Your task to perform on an android device: turn smart compose on in the gmail app Image 0: 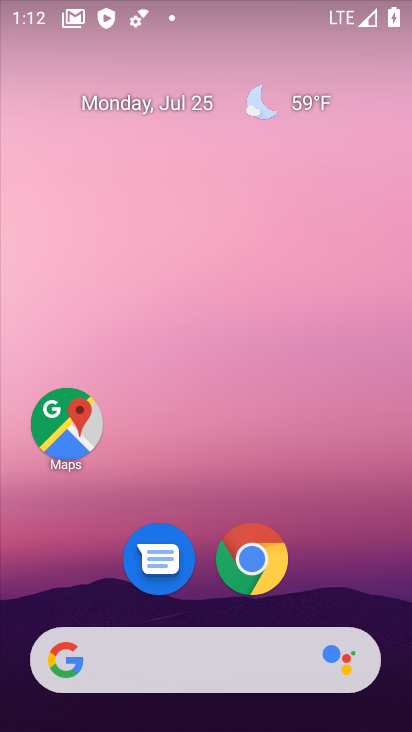
Step 0: drag from (130, 622) to (284, 0)
Your task to perform on an android device: turn smart compose on in the gmail app Image 1: 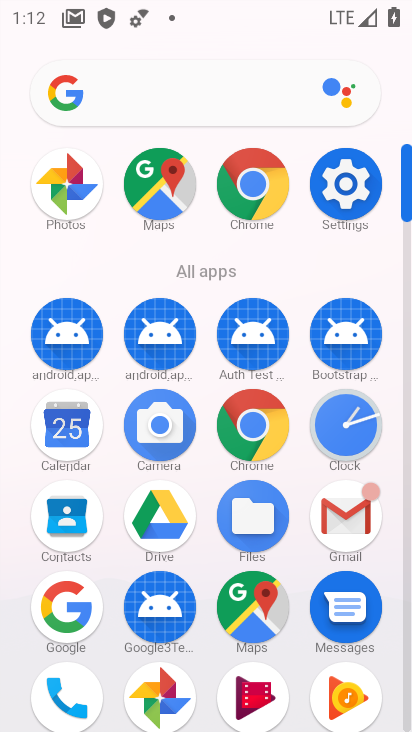
Step 1: click (340, 517)
Your task to perform on an android device: turn smart compose on in the gmail app Image 2: 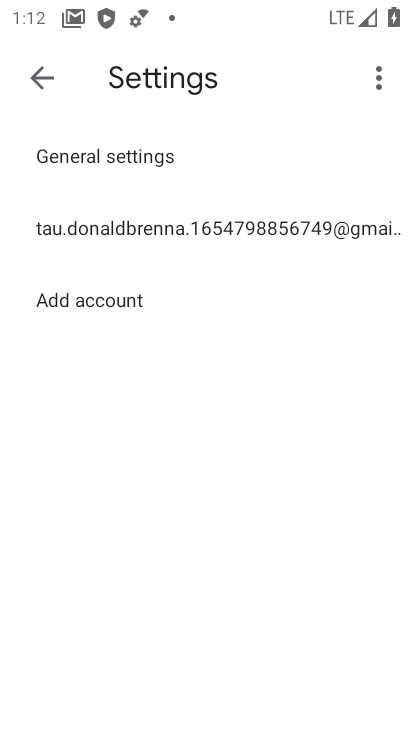
Step 2: click (45, 66)
Your task to perform on an android device: turn smart compose on in the gmail app Image 3: 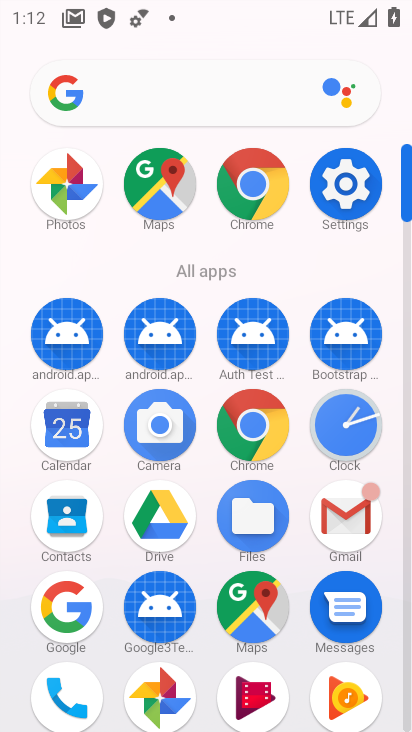
Step 3: click (337, 522)
Your task to perform on an android device: turn smart compose on in the gmail app Image 4: 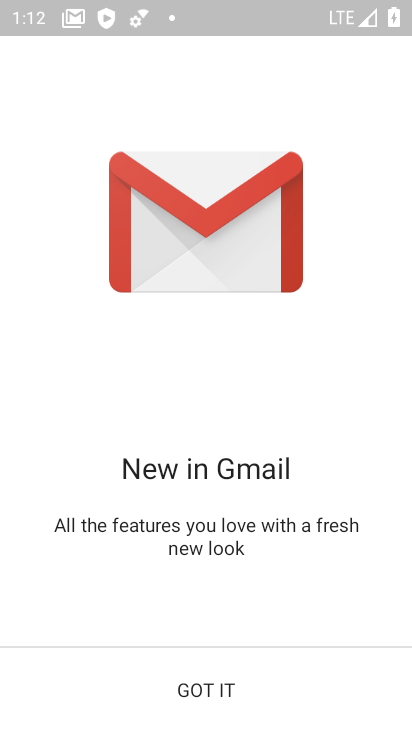
Step 4: click (181, 693)
Your task to perform on an android device: turn smart compose on in the gmail app Image 5: 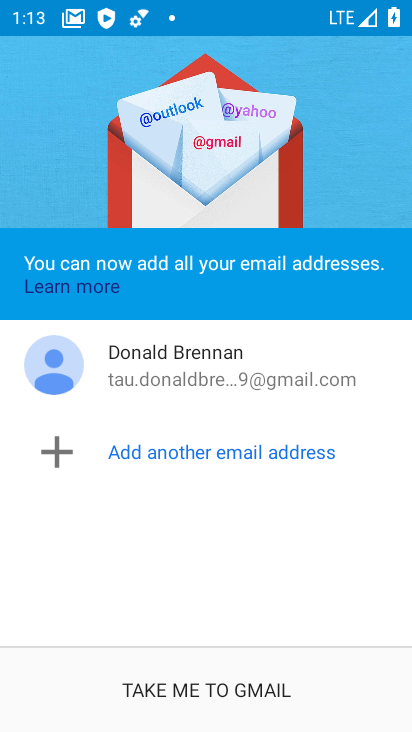
Step 5: click (228, 681)
Your task to perform on an android device: turn smart compose on in the gmail app Image 6: 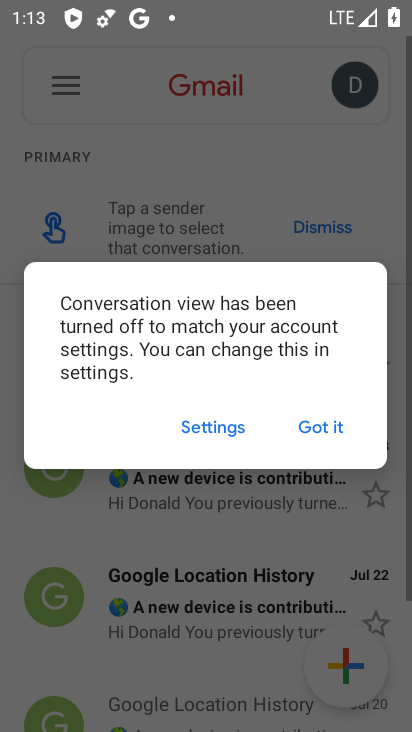
Step 6: click (333, 417)
Your task to perform on an android device: turn smart compose on in the gmail app Image 7: 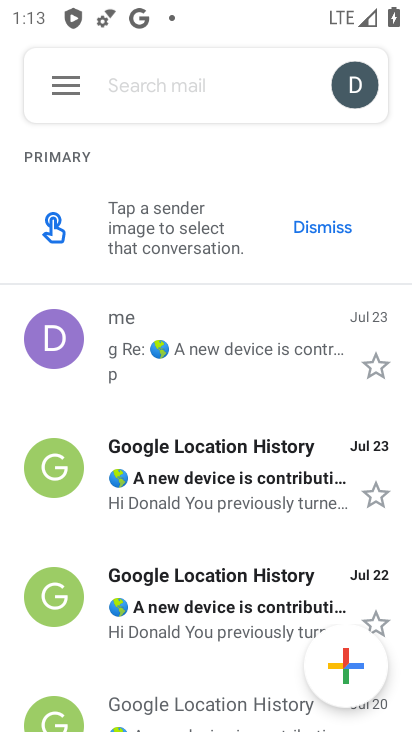
Step 7: click (66, 92)
Your task to perform on an android device: turn smart compose on in the gmail app Image 8: 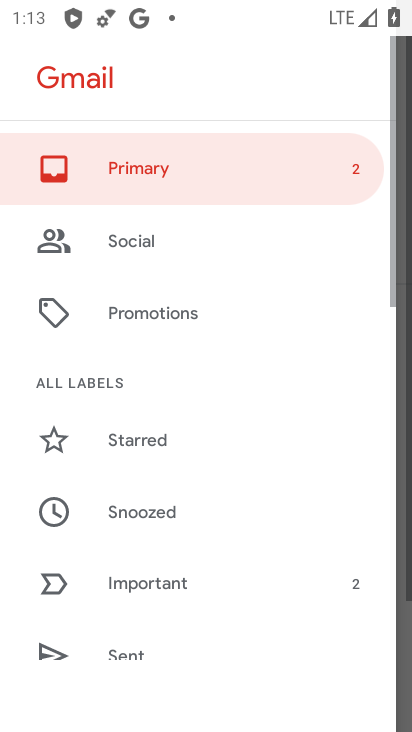
Step 8: drag from (178, 672) to (260, 129)
Your task to perform on an android device: turn smart compose on in the gmail app Image 9: 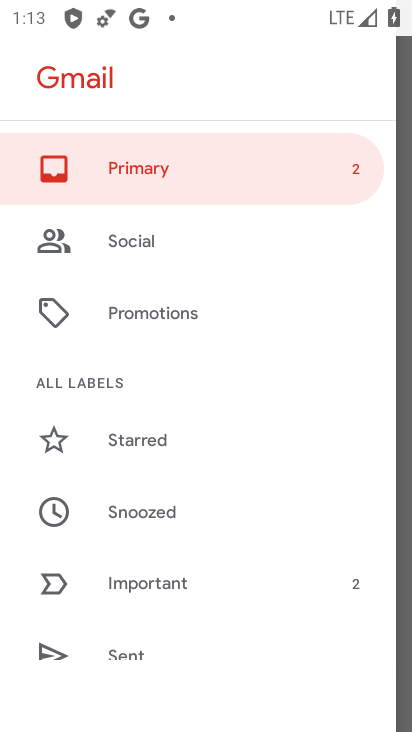
Step 9: drag from (156, 657) to (215, 98)
Your task to perform on an android device: turn smart compose on in the gmail app Image 10: 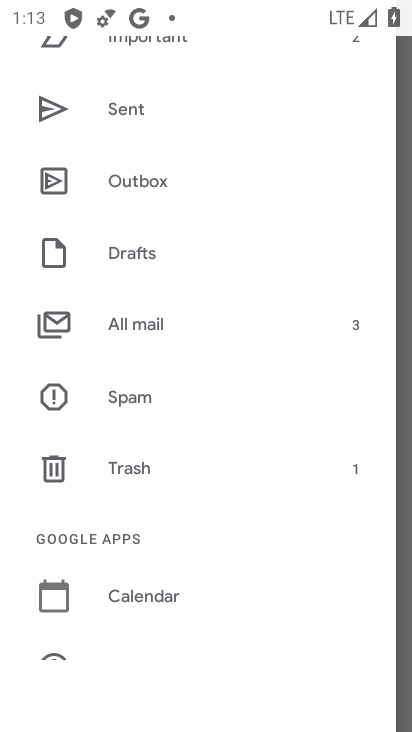
Step 10: drag from (165, 548) to (280, 0)
Your task to perform on an android device: turn smart compose on in the gmail app Image 11: 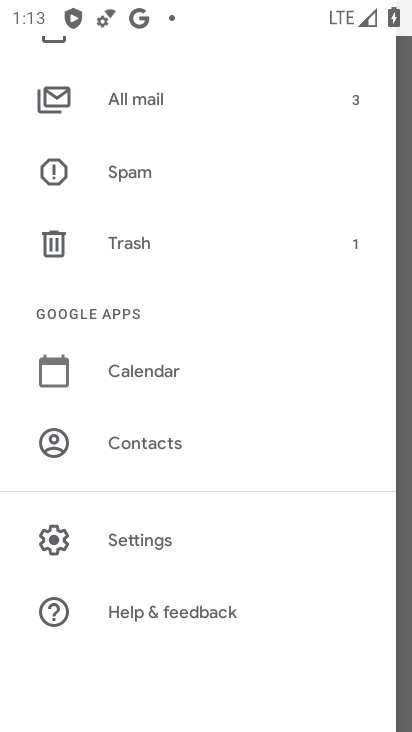
Step 11: click (122, 537)
Your task to perform on an android device: turn smart compose on in the gmail app Image 12: 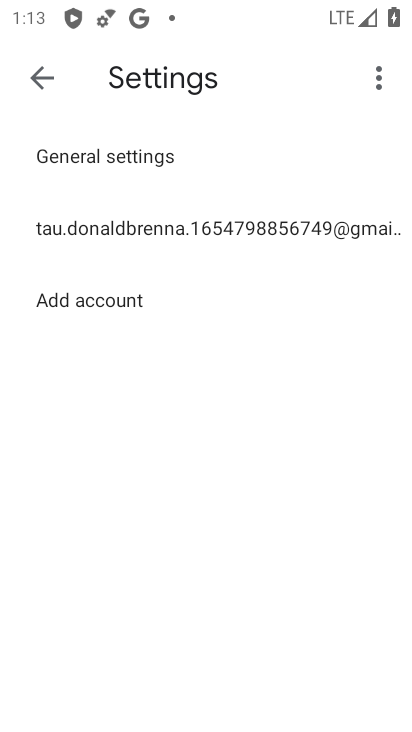
Step 12: click (141, 237)
Your task to perform on an android device: turn smart compose on in the gmail app Image 13: 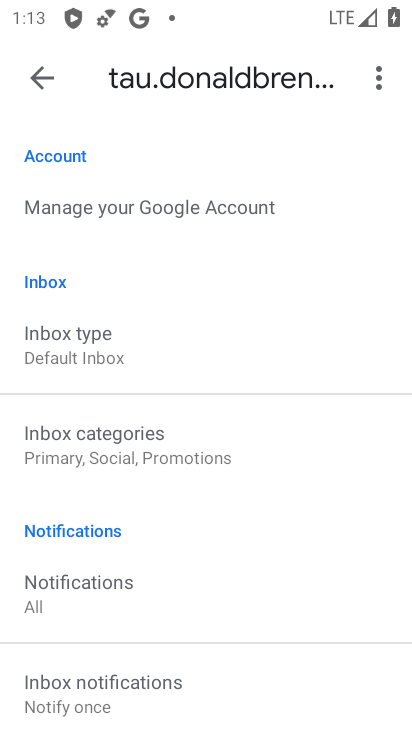
Step 13: task complete